Your task to perform on an android device: change the upload size in google photos Image 0: 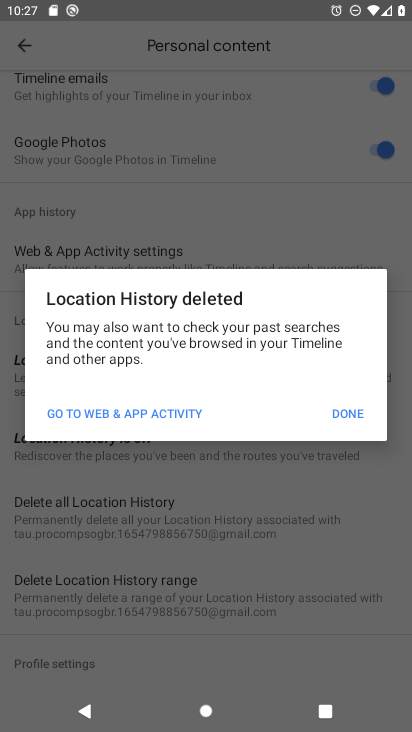
Step 0: press home button
Your task to perform on an android device: change the upload size in google photos Image 1: 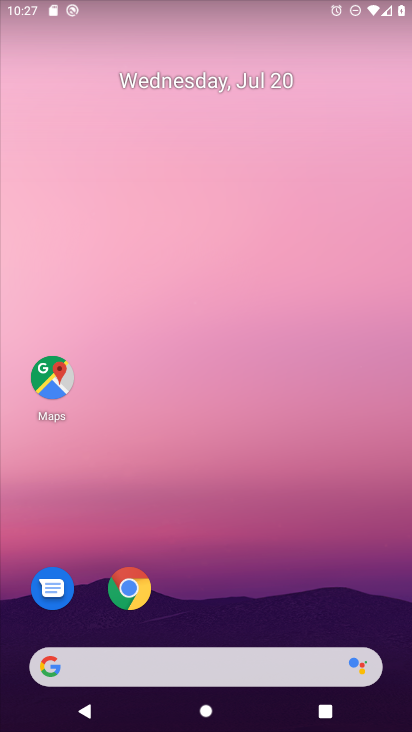
Step 1: drag from (158, 619) to (212, 85)
Your task to perform on an android device: change the upload size in google photos Image 2: 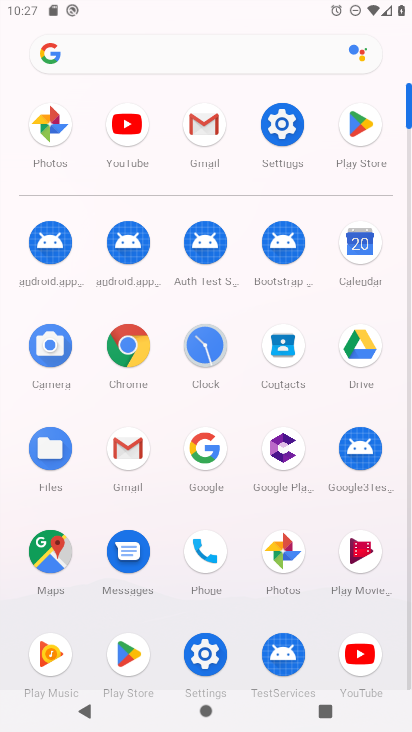
Step 2: click (28, 126)
Your task to perform on an android device: change the upload size in google photos Image 3: 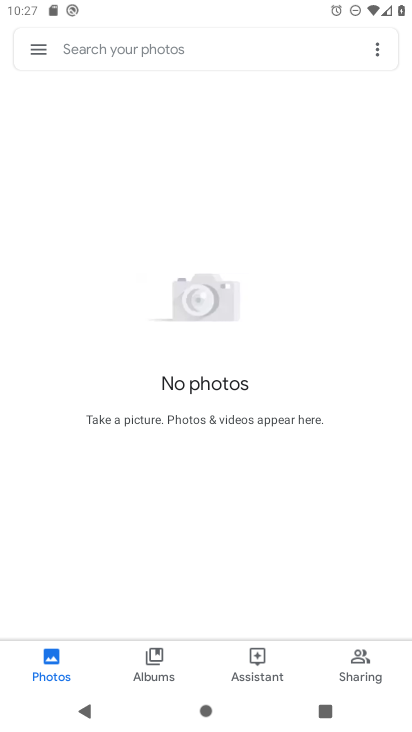
Step 3: click (49, 57)
Your task to perform on an android device: change the upload size in google photos Image 4: 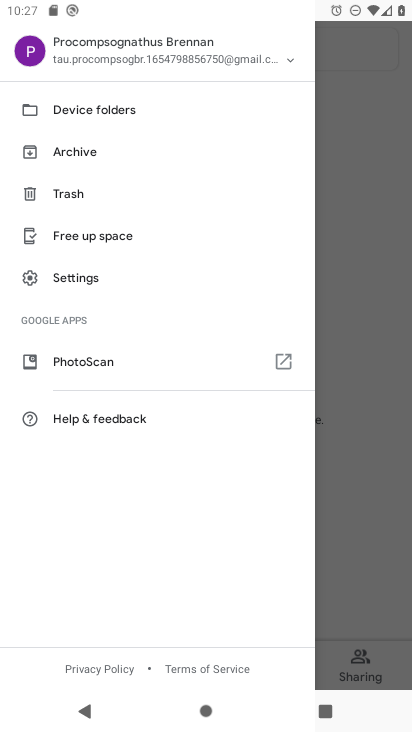
Step 4: click (63, 287)
Your task to perform on an android device: change the upload size in google photos Image 5: 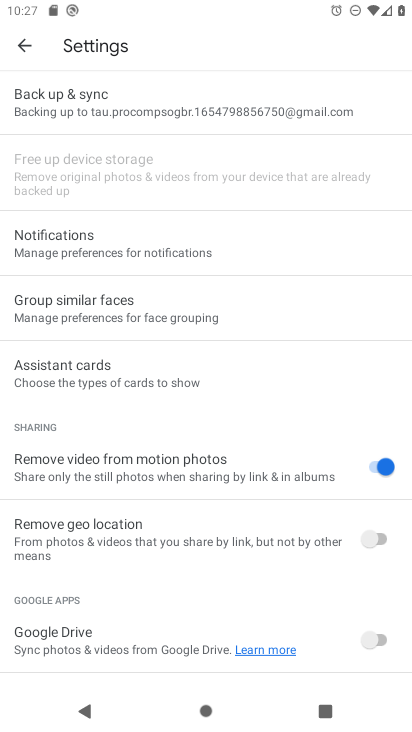
Step 5: click (136, 116)
Your task to perform on an android device: change the upload size in google photos Image 6: 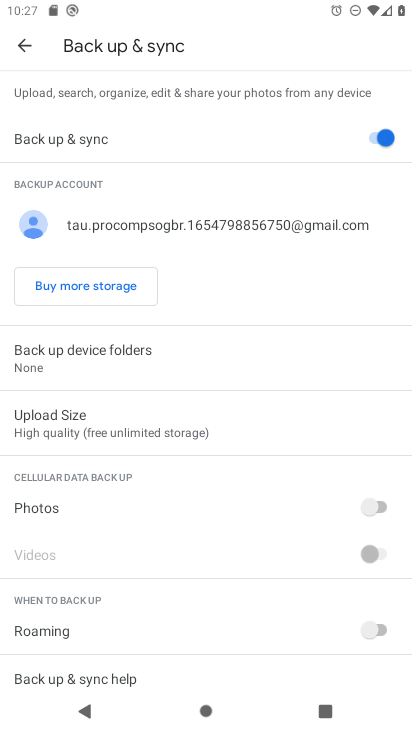
Step 6: click (140, 417)
Your task to perform on an android device: change the upload size in google photos Image 7: 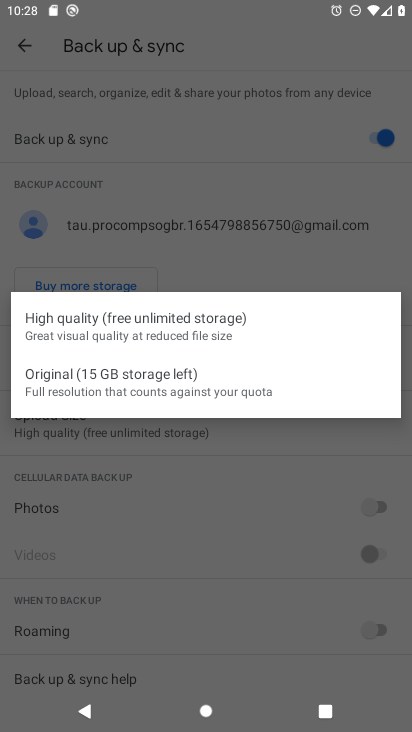
Step 7: click (226, 407)
Your task to perform on an android device: change the upload size in google photos Image 8: 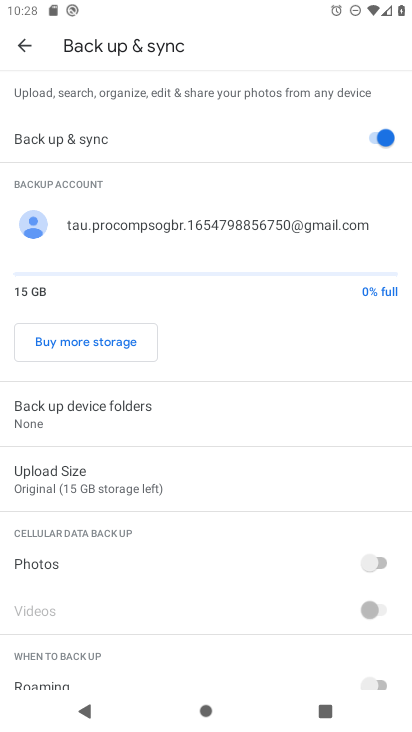
Step 8: task complete